Your task to perform on an android device: Open the map Image 0: 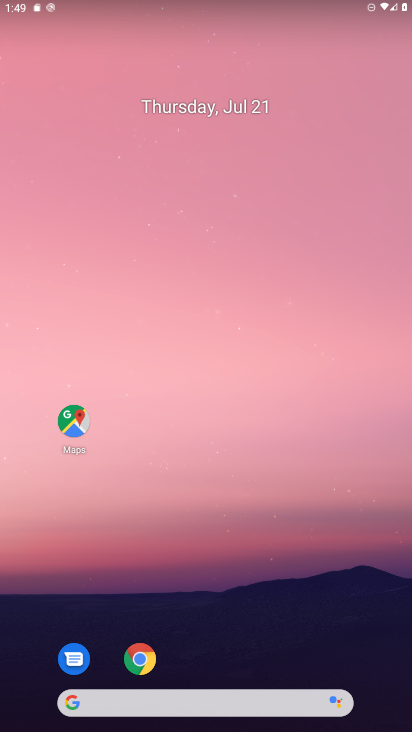
Step 0: task complete